Your task to perform on an android device: Search for alienware aurora on costco, select the first entry, and add it to the cart. Image 0: 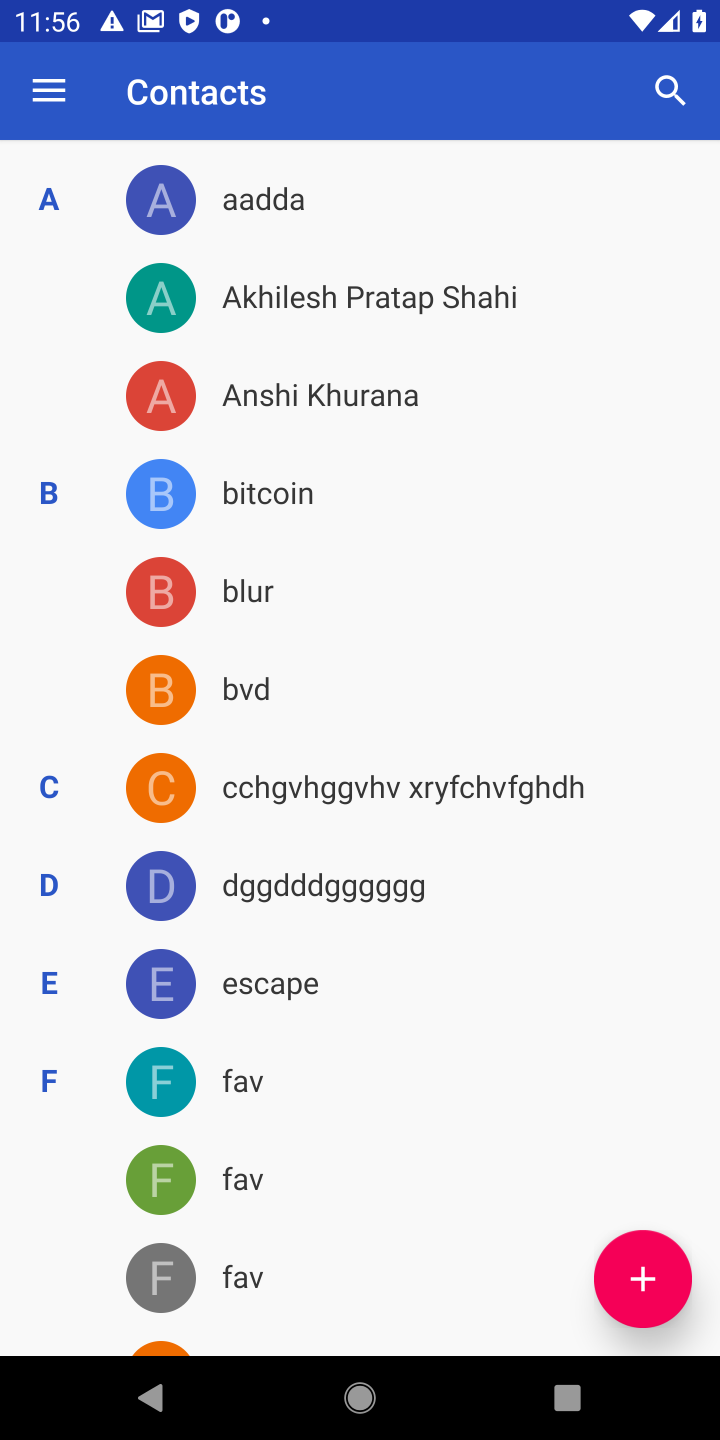
Step 0: press home button
Your task to perform on an android device: Search for alienware aurora on costco, select the first entry, and add it to the cart. Image 1: 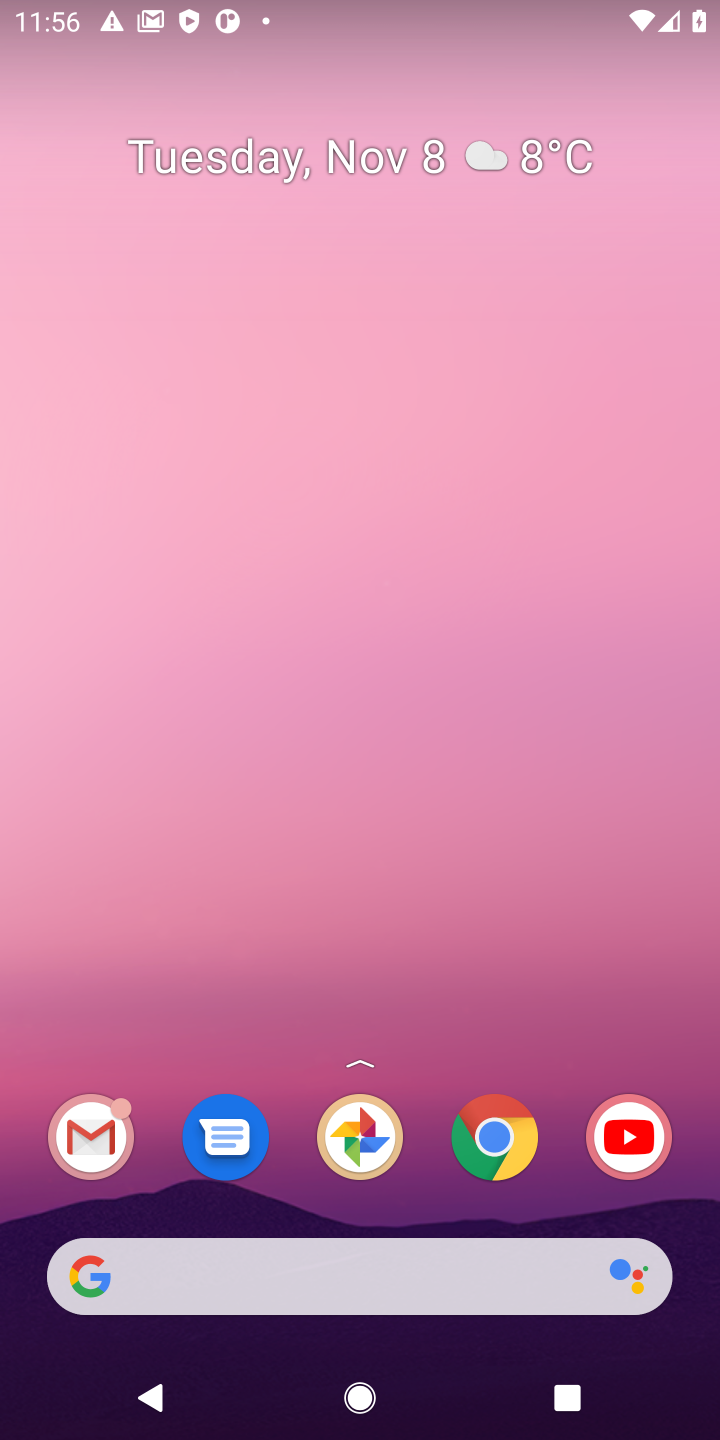
Step 1: click (482, 1142)
Your task to perform on an android device: Search for alienware aurora on costco, select the first entry, and add it to the cart. Image 2: 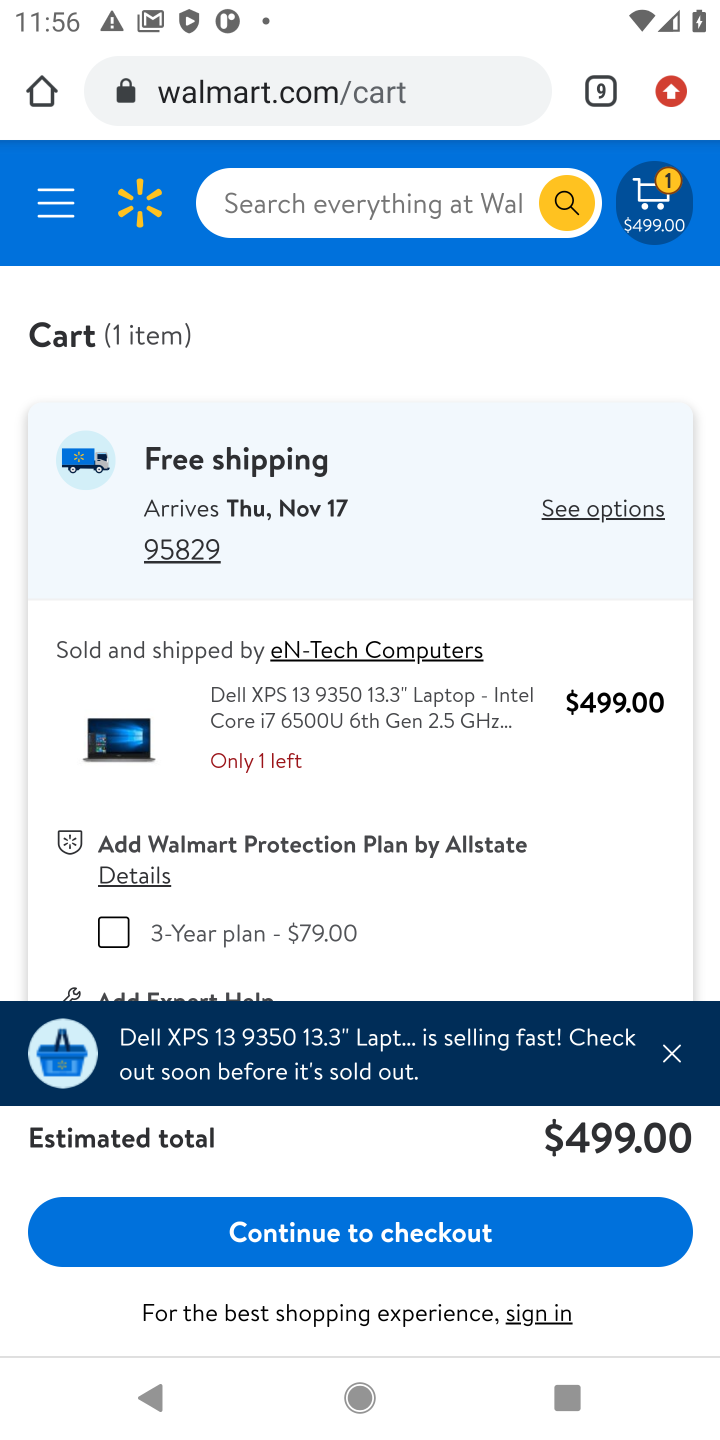
Step 2: click (596, 81)
Your task to perform on an android device: Search for alienware aurora on costco, select the first entry, and add it to the cart. Image 3: 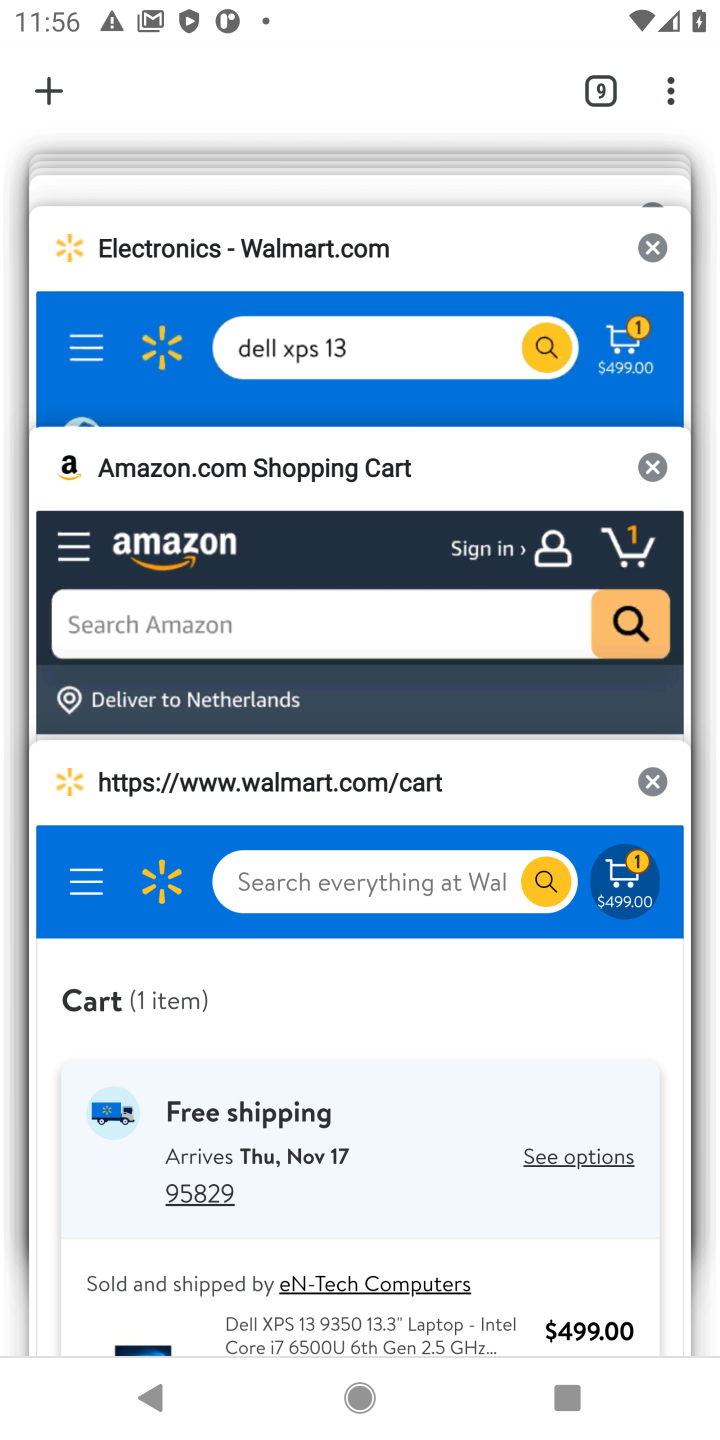
Step 3: click (651, 781)
Your task to perform on an android device: Search for alienware aurora on costco, select the first entry, and add it to the cart. Image 4: 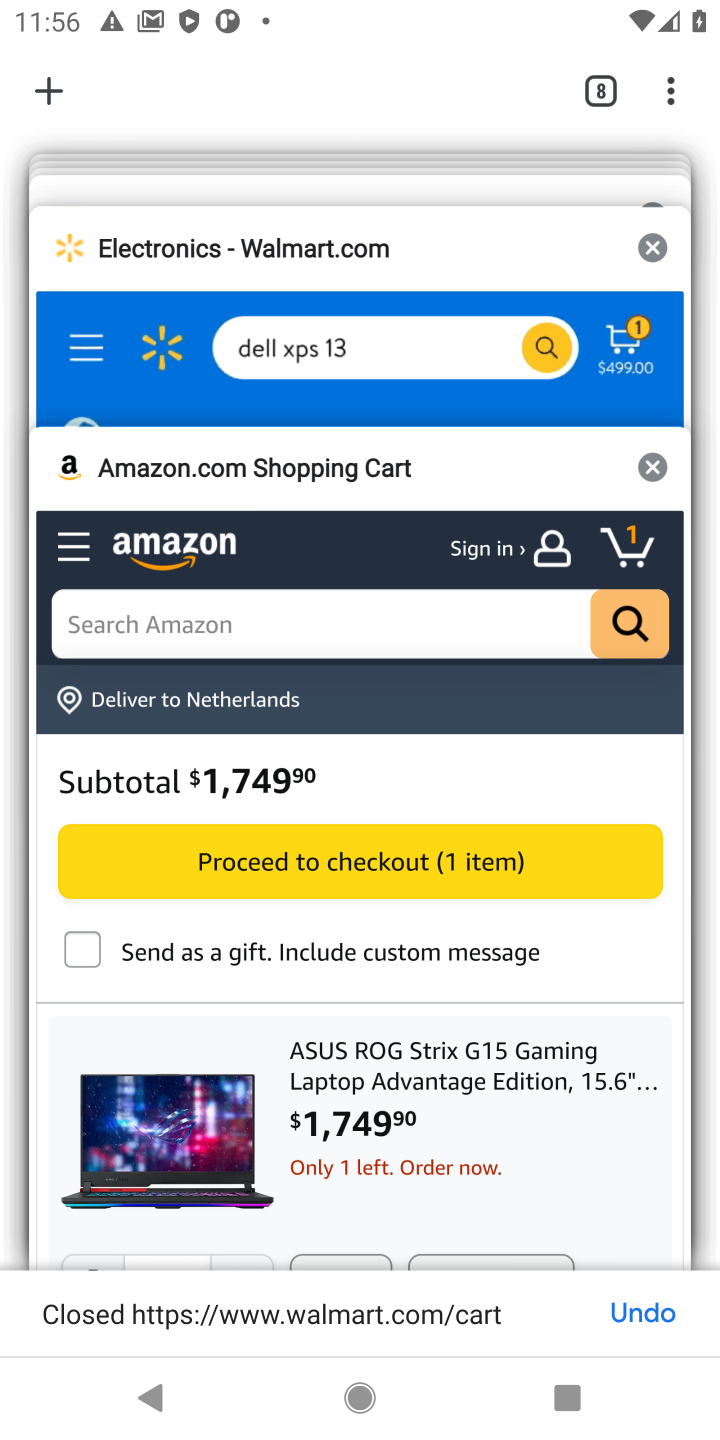
Step 4: drag from (396, 235) to (279, 624)
Your task to perform on an android device: Search for alienware aurora on costco, select the first entry, and add it to the cart. Image 5: 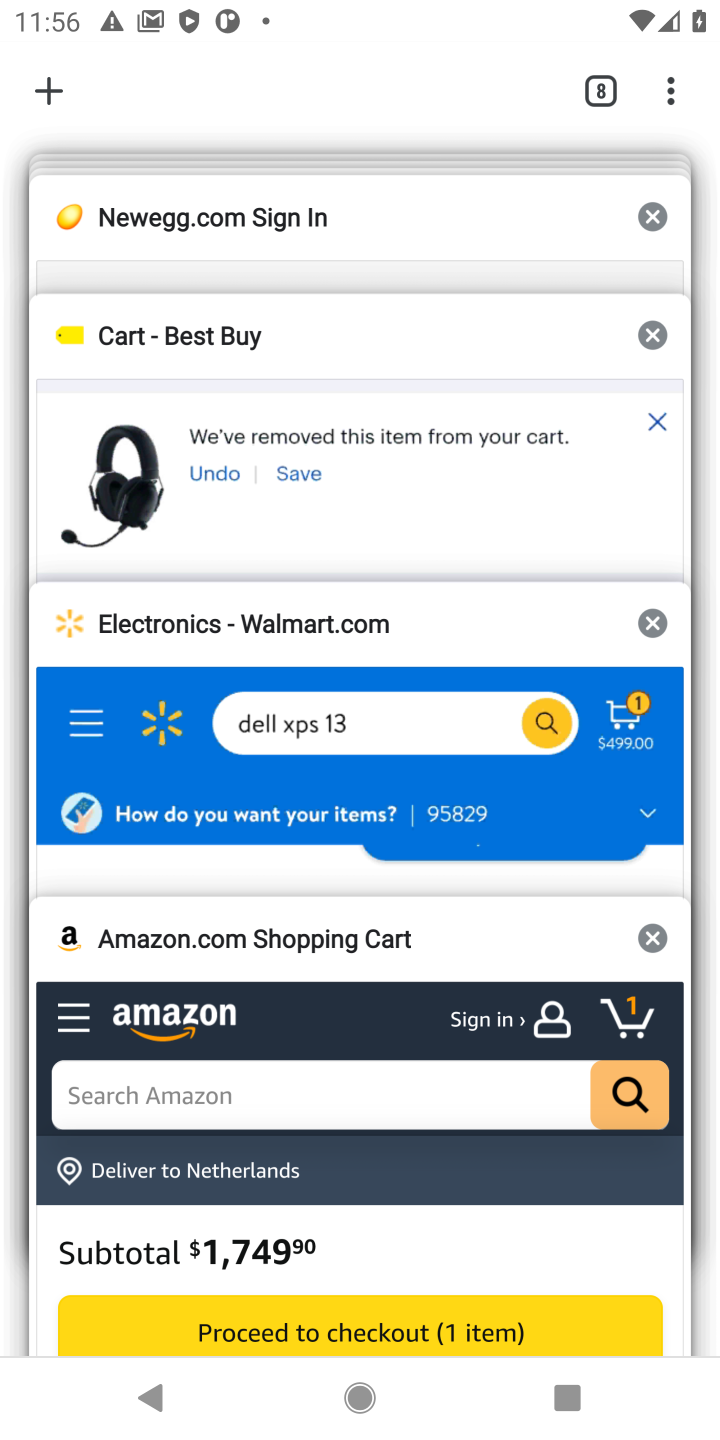
Step 5: drag from (347, 255) to (347, 570)
Your task to perform on an android device: Search for alienware aurora on costco, select the first entry, and add it to the cart. Image 6: 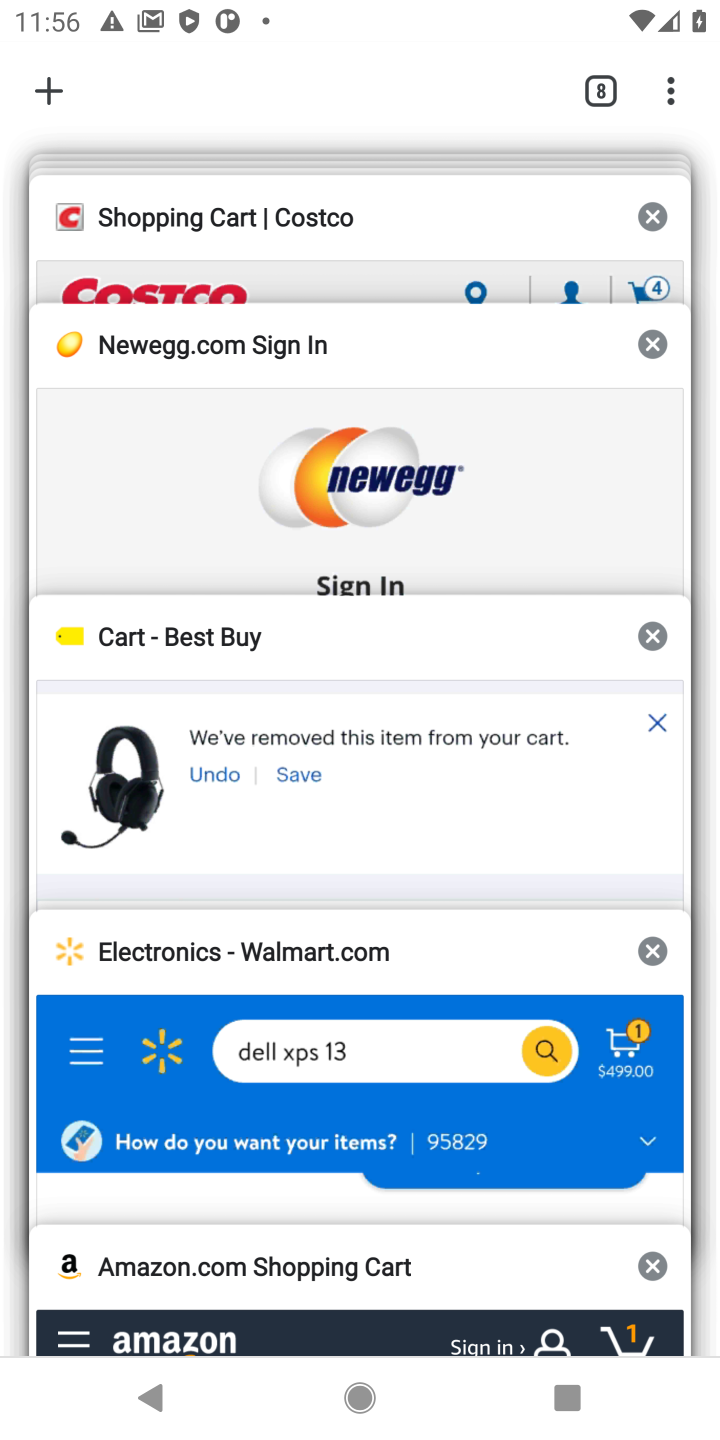
Step 6: click (653, 632)
Your task to perform on an android device: Search for alienware aurora on costco, select the first entry, and add it to the cart. Image 7: 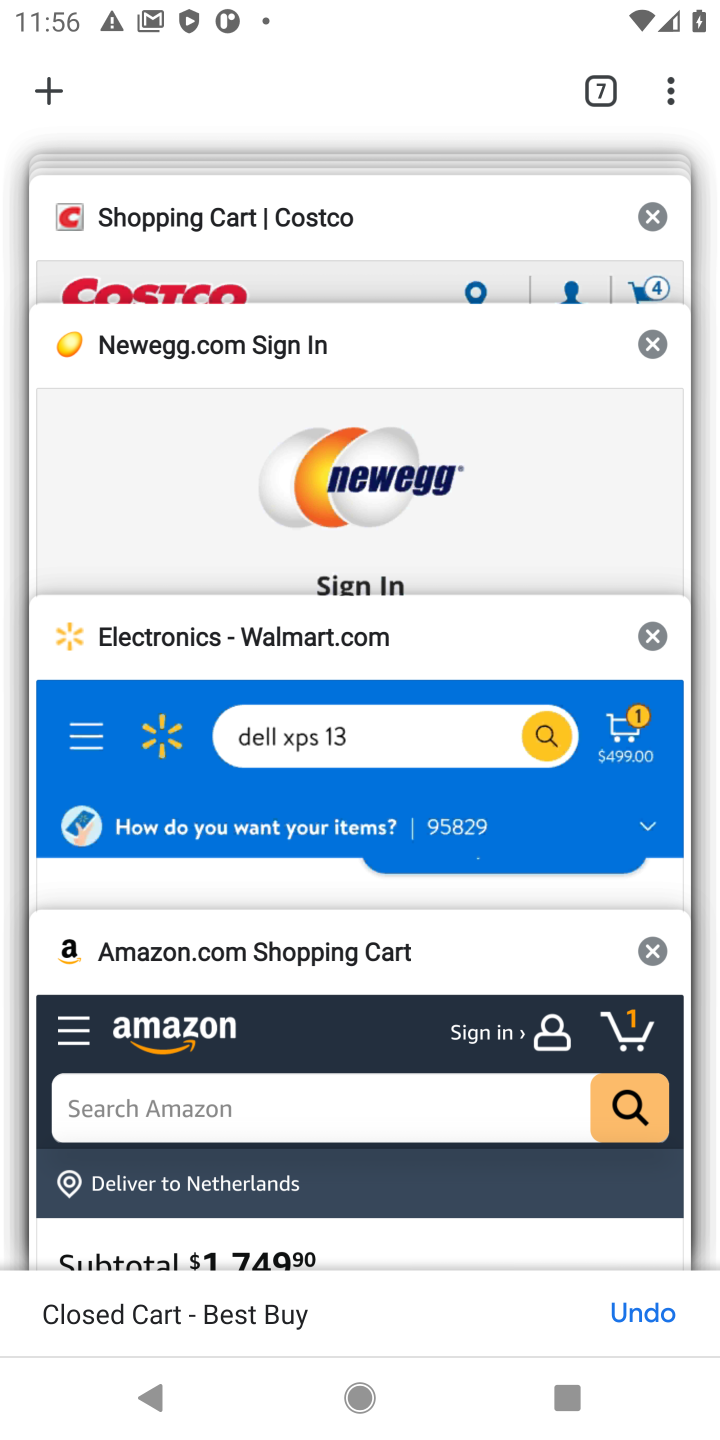
Step 7: click (463, 253)
Your task to perform on an android device: Search for alienware aurora on costco, select the first entry, and add it to the cart. Image 8: 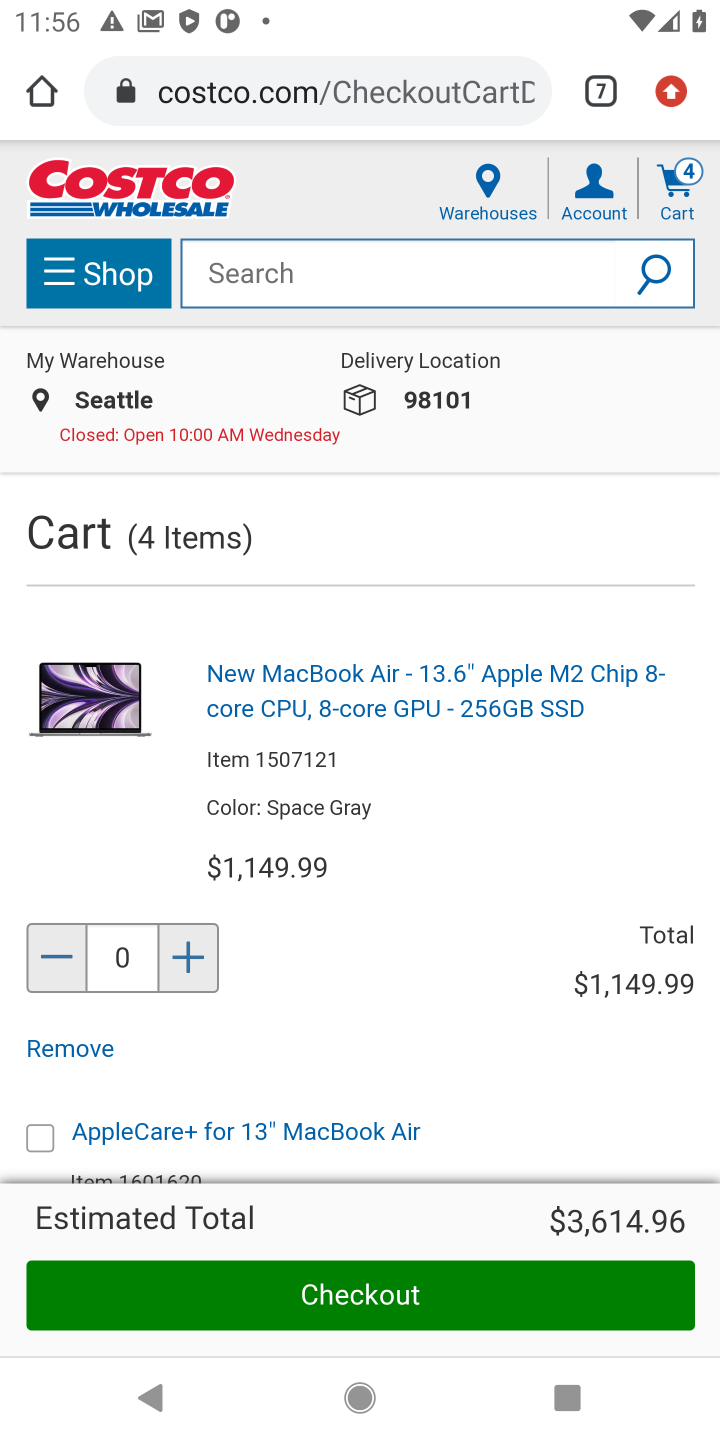
Step 8: click (339, 275)
Your task to perform on an android device: Search for alienware aurora on costco, select the first entry, and add it to the cart. Image 9: 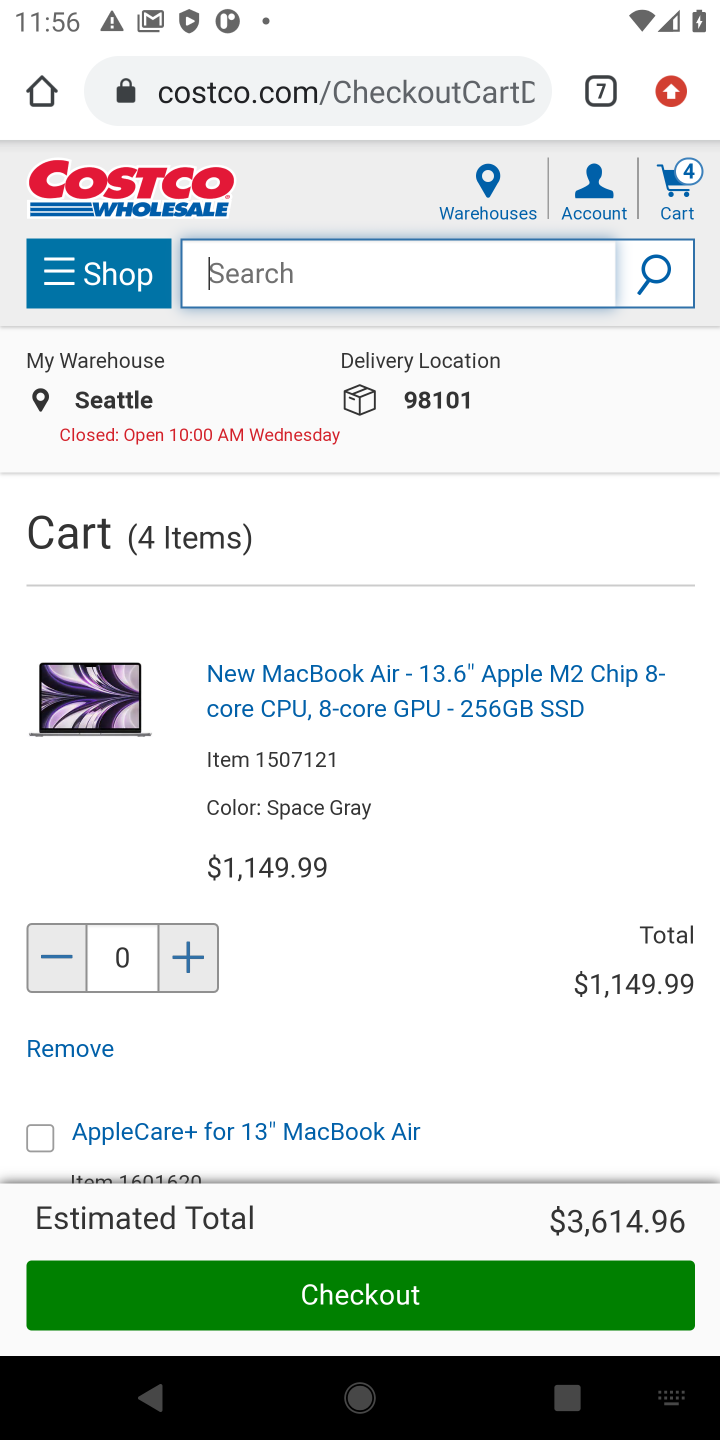
Step 9: type "alienware aurora"
Your task to perform on an android device: Search for alienware aurora on costco, select the first entry, and add it to the cart. Image 10: 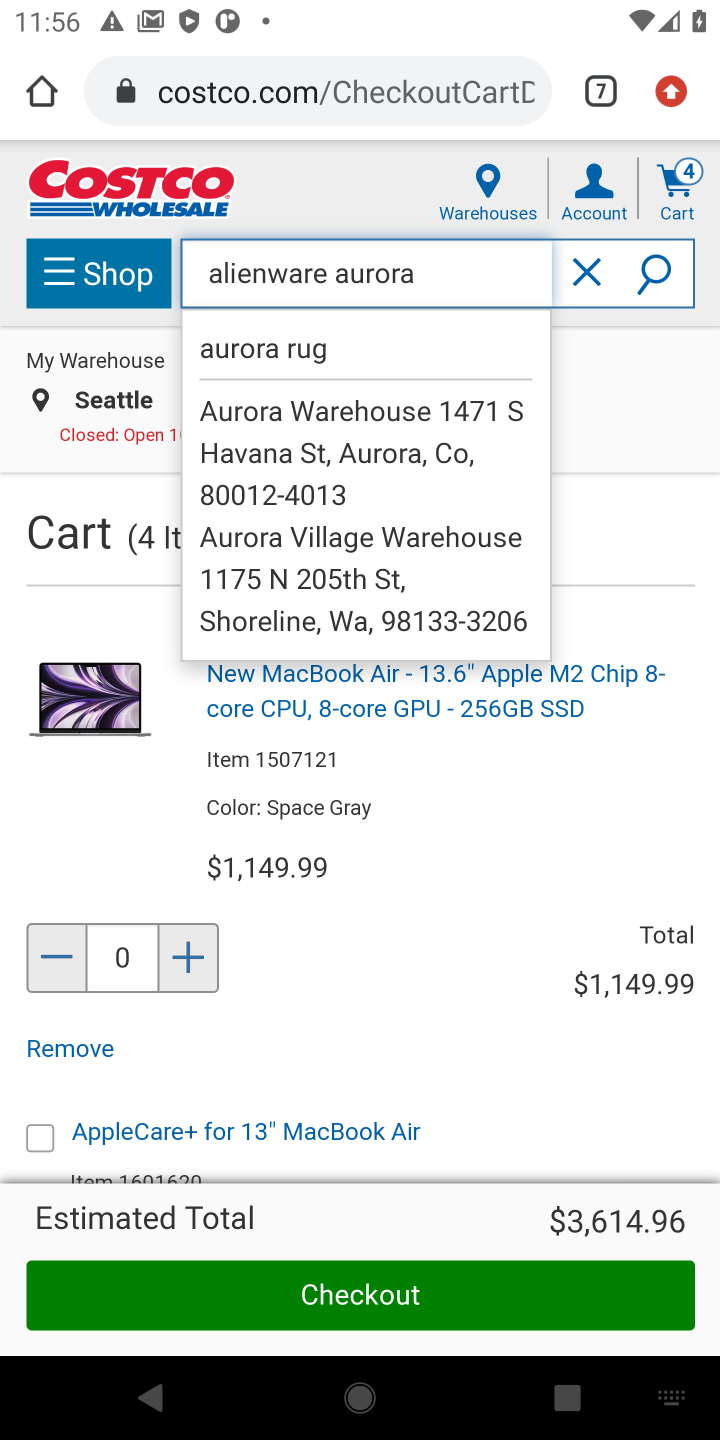
Step 10: click (657, 264)
Your task to perform on an android device: Search for alienware aurora on costco, select the first entry, and add it to the cart. Image 11: 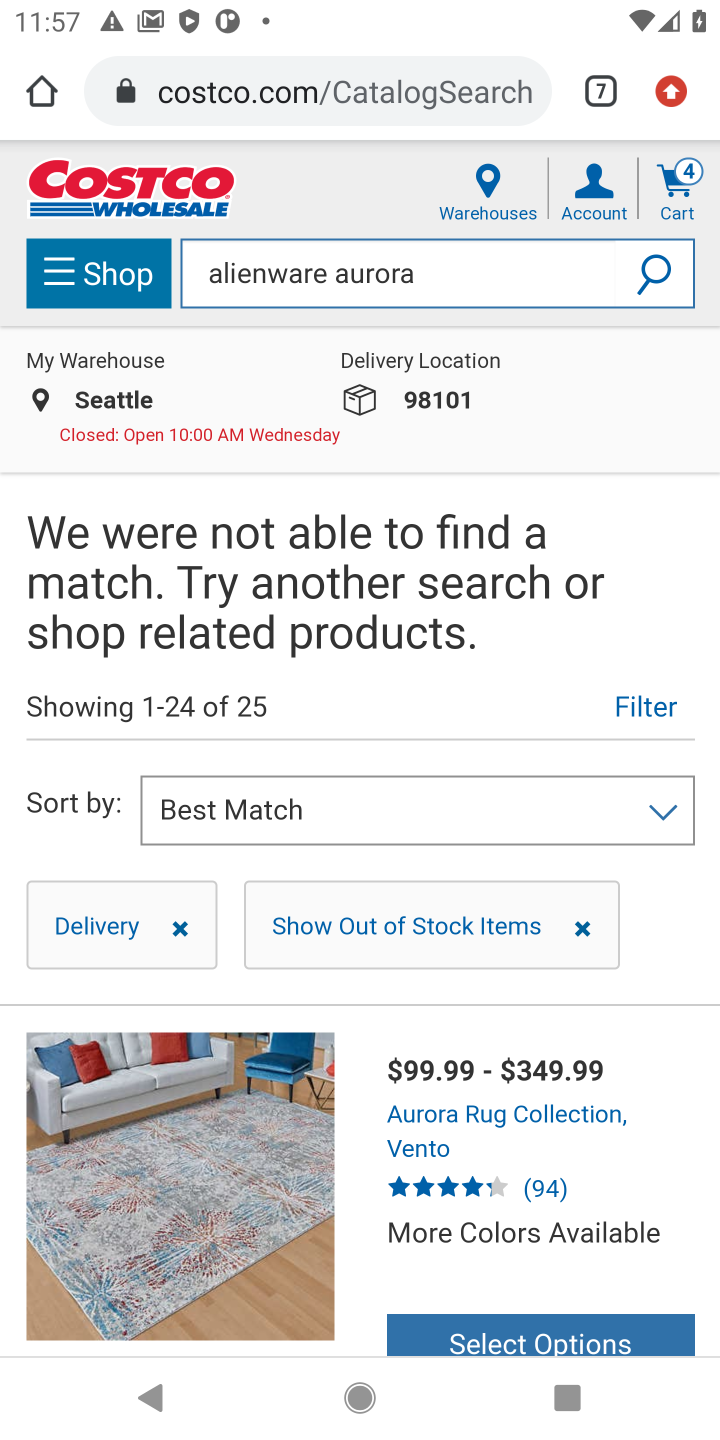
Step 11: task complete